Your task to perform on an android device: How much does a 2 bedroom apartment rent for in Denver? Image 0: 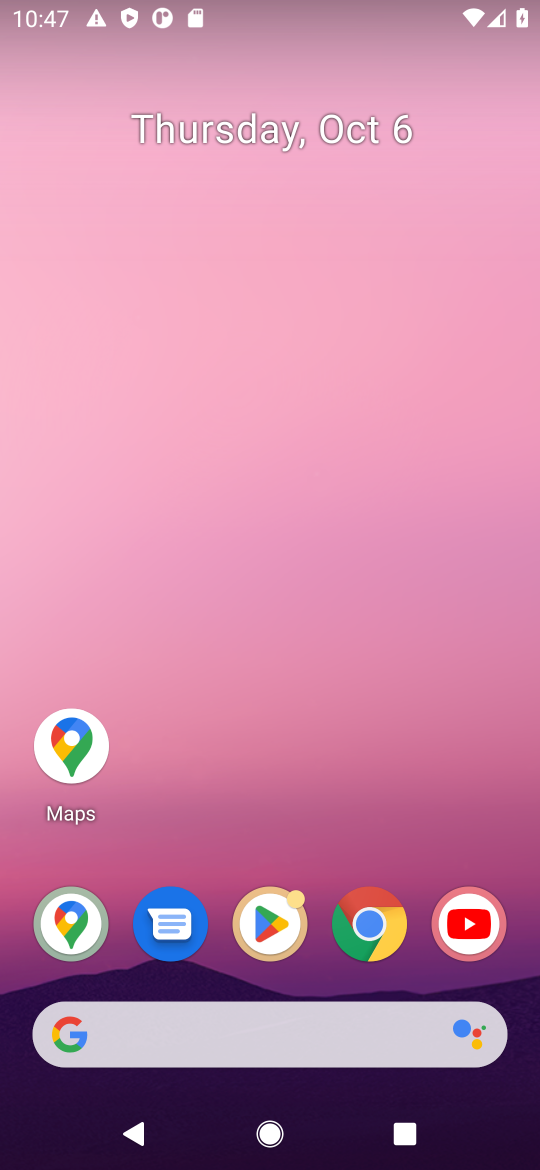
Step 0: click (364, 926)
Your task to perform on an android device: How much does a 2 bedroom apartment rent for in Denver? Image 1: 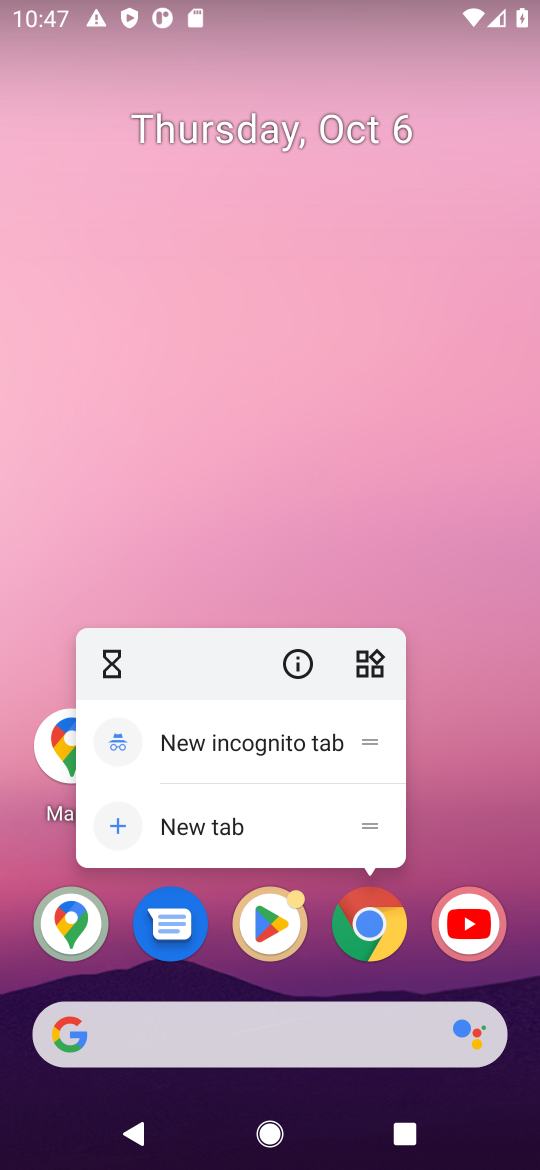
Step 1: click (383, 932)
Your task to perform on an android device: How much does a 2 bedroom apartment rent for in Denver? Image 2: 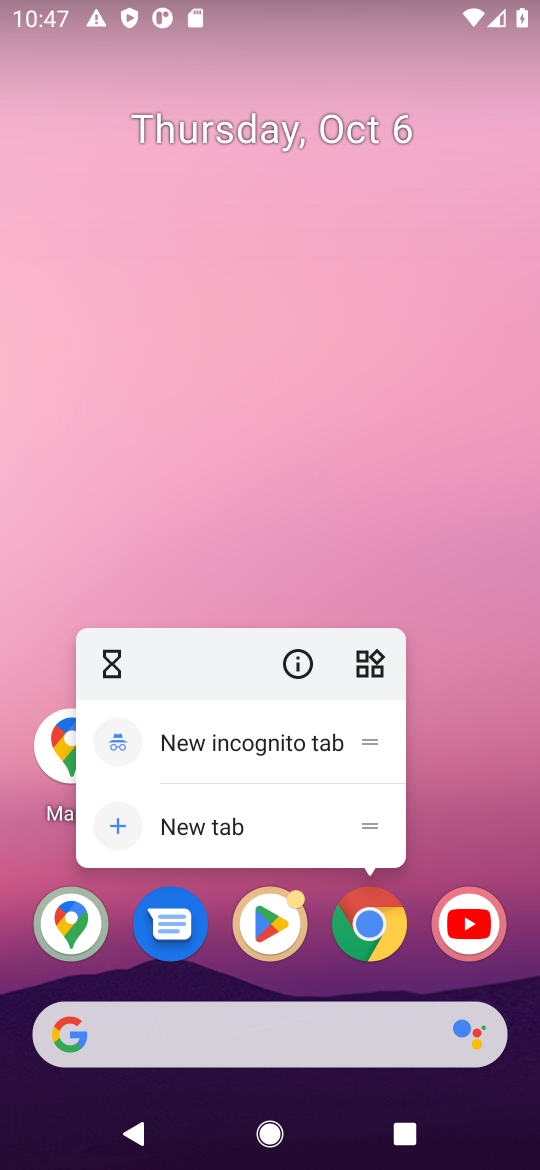
Step 2: click (383, 932)
Your task to perform on an android device: How much does a 2 bedroom apartment rent for in Denver? Image 3: 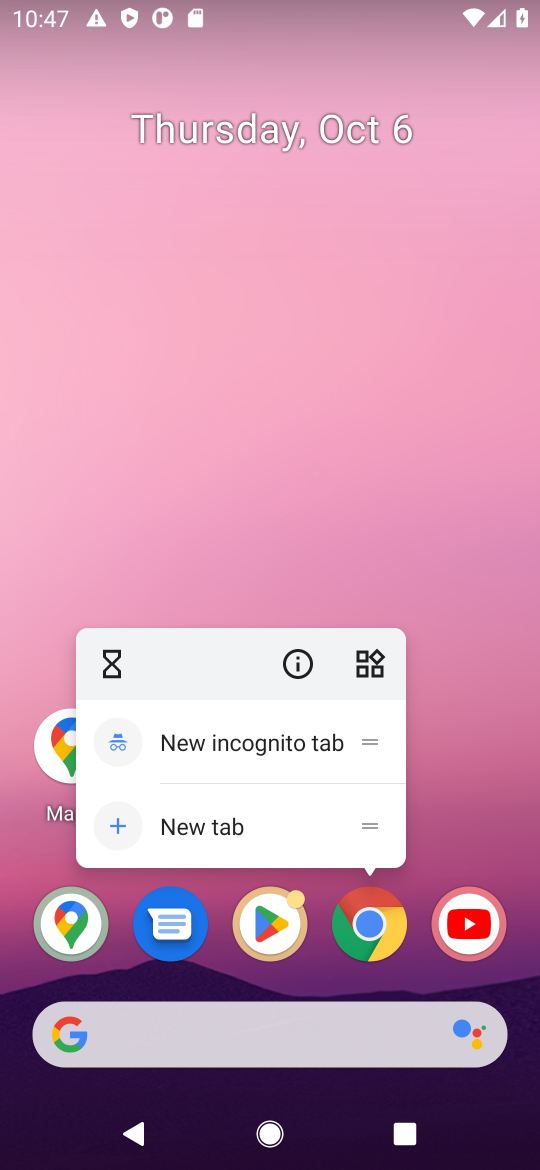
Step 3: click (359, 916)
Your task to perform on an android device: How much does a 2 bedroom apartment rent for in Denver? Image 4: 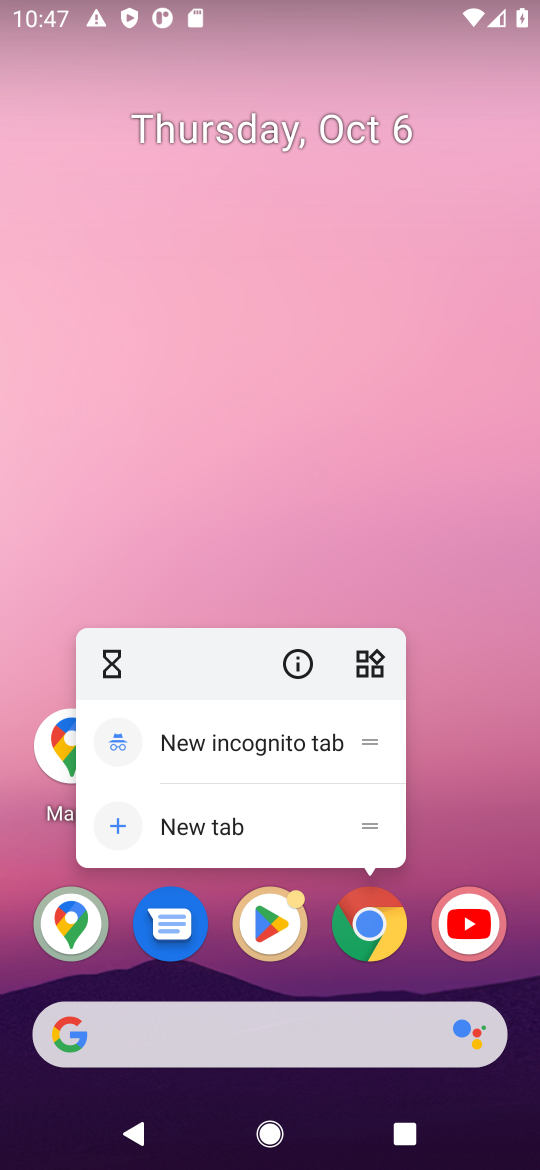
Step 4: click (369, 929)
Your task to perform on an android device: How much does a 2 bedroom apartment rent for in Denver? Image 5: 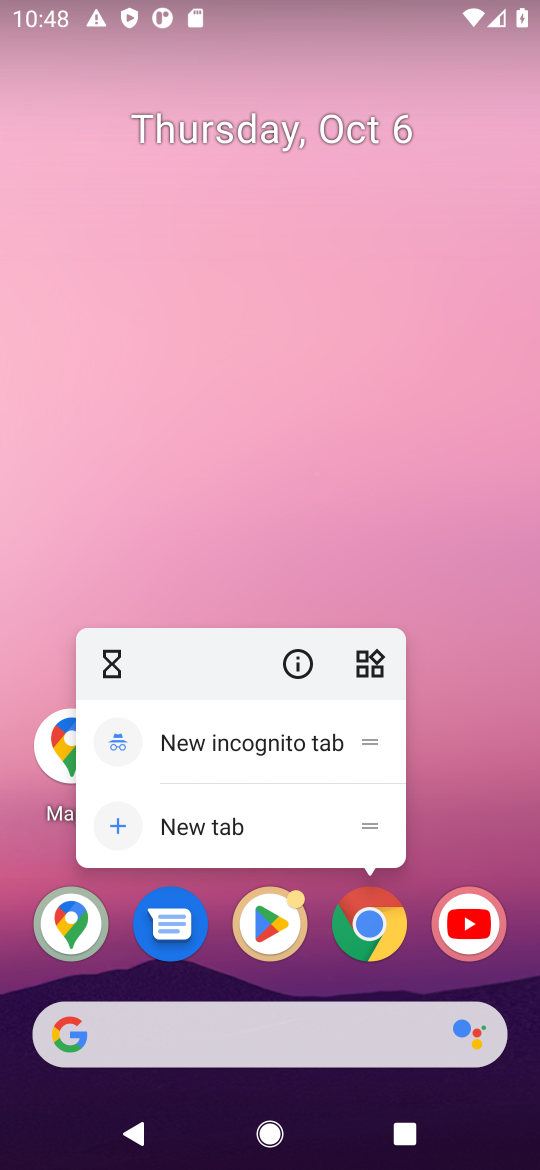
Step 5: click (369, 928)
Your task to perform on an android device: How much does a 2 bedroom apartment rent for in Denver? Image 6: 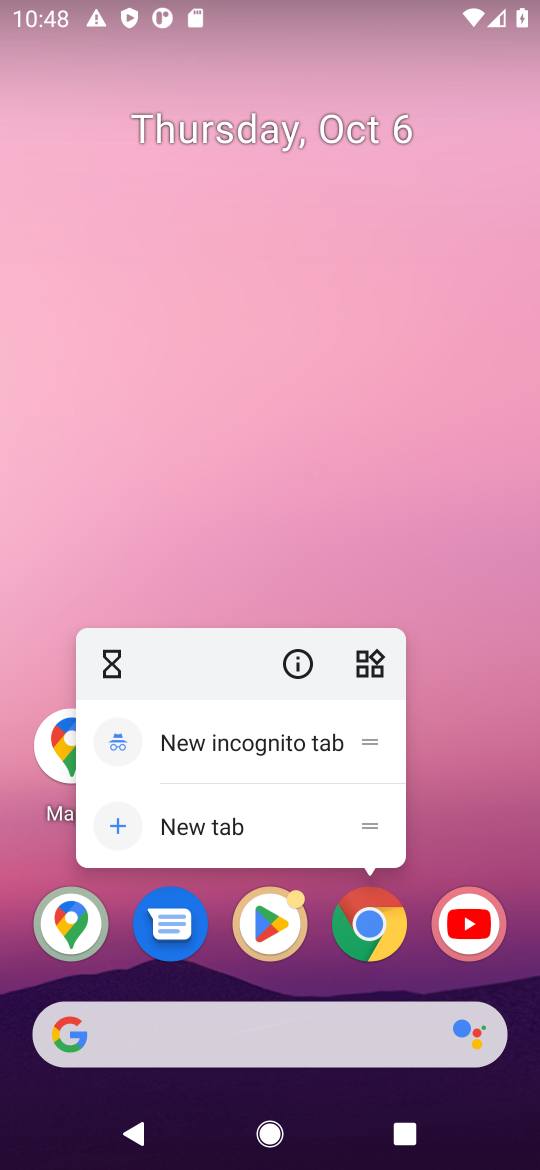
Step 6: click (369, 925)
Your task to perform on an android device: How much does a 2 bedroom apartment rent for in Denver? Image 7: 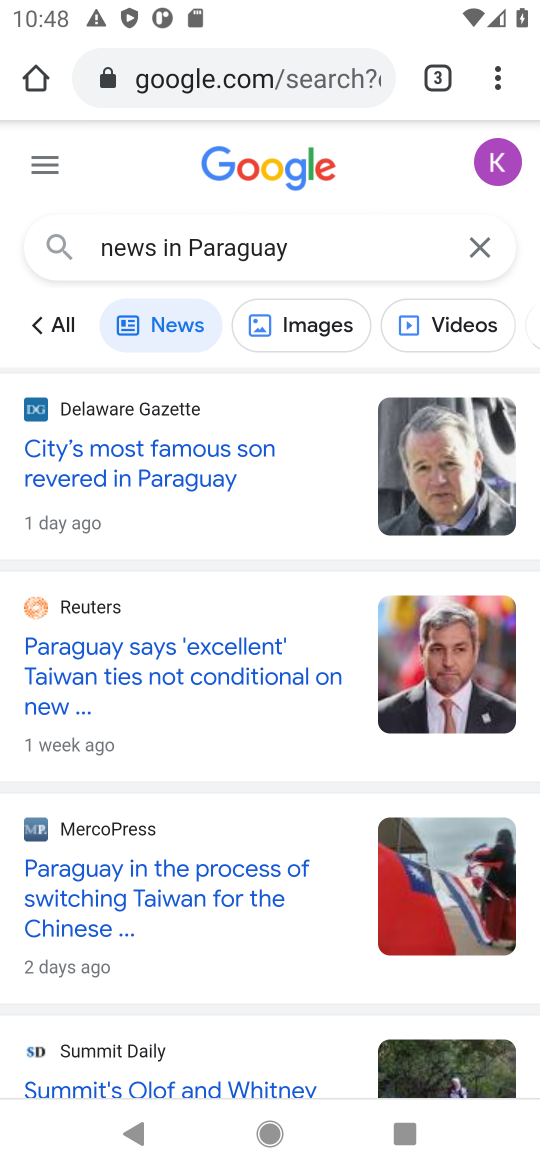
Step 7: click (320, 74)
Your task to perform on an android device: How much does a 2 bedroom apartment rent for in Denver? Image 8: 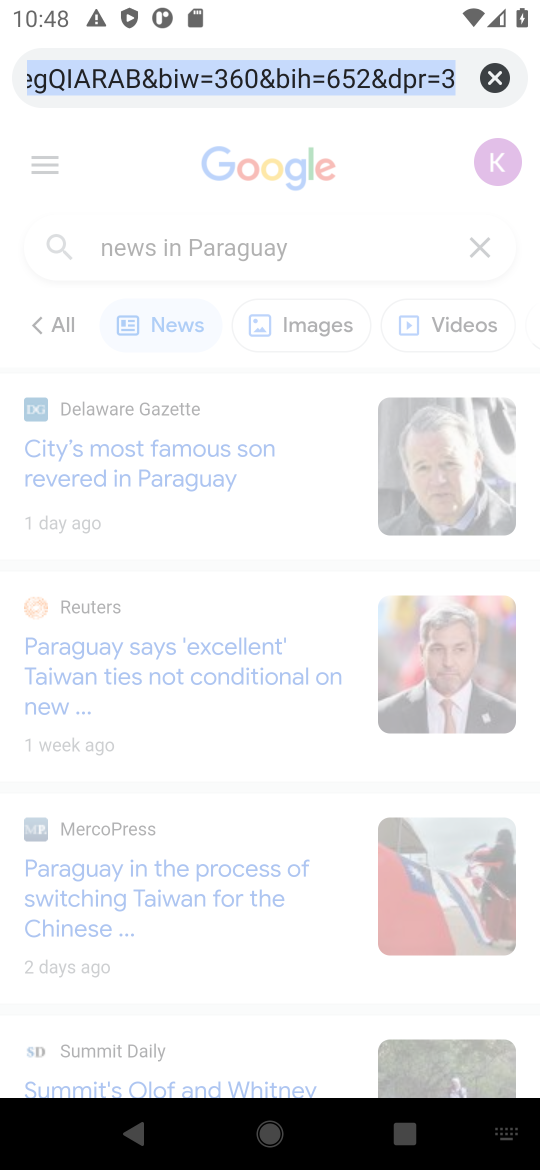
Step 8: click (501, 77)
Your task to perform on an android device: How much does a 2 bedroom apartment rent for in Denver? Image 9: 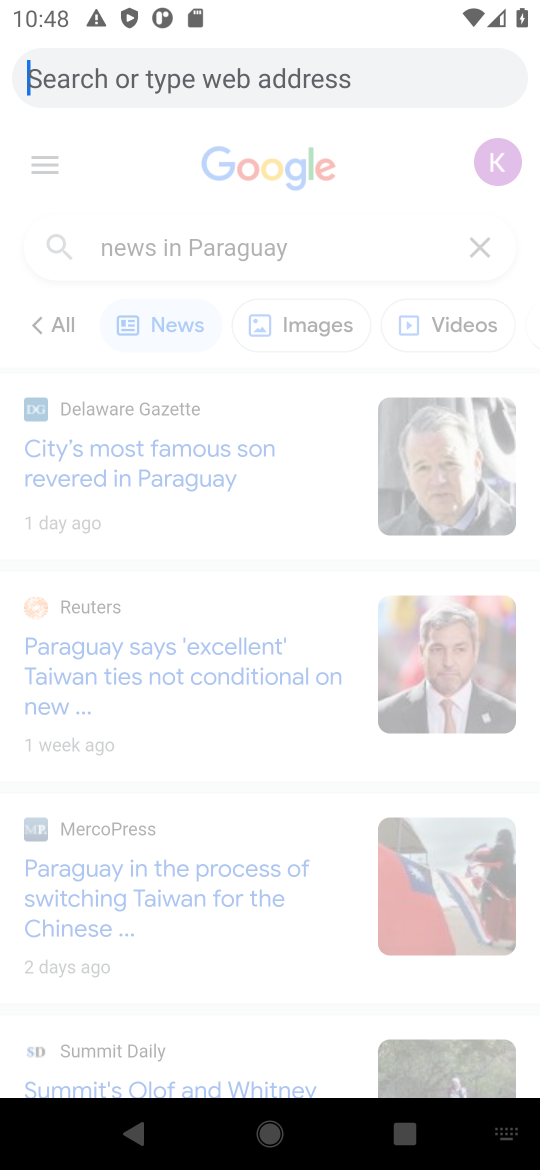
Step 9: type "2 bedroom apartment rent for in Denver"
Your task to perform on an android device: How much does a 2 bedroom apartment rent for in Denver? Image 10: 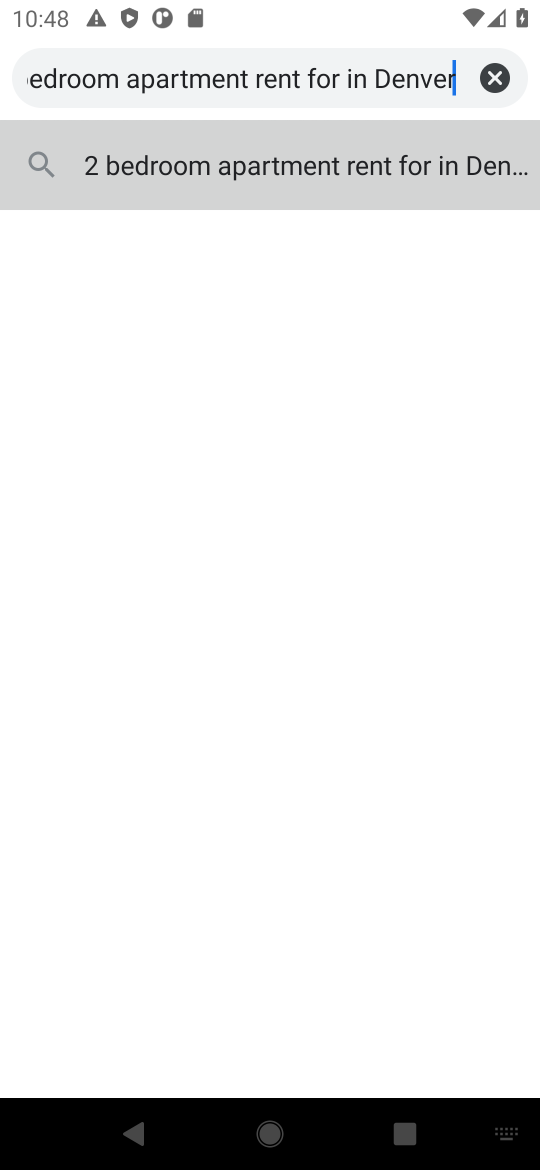
Step 10: click (246, 166)
Your task to perform on an android device: How much does a 2 bedroom apartment rent for in Denver? Image 11: 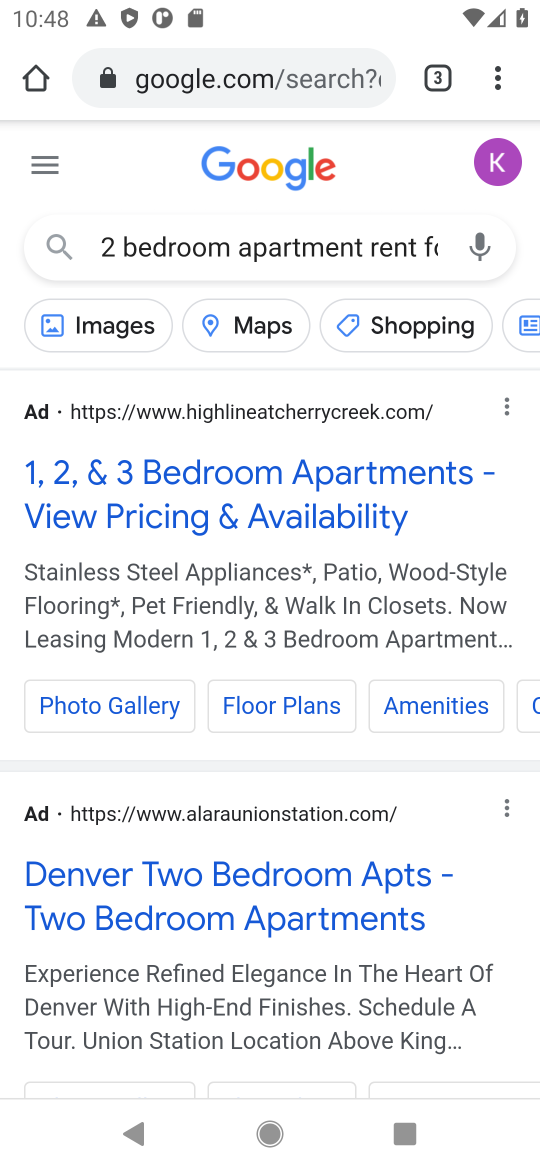
Step 11: drag from (271, 796) to (469, 114)
Your task to perform on an android device: How much does a 2 bedroom apartment rent for in Denver? Image 12: 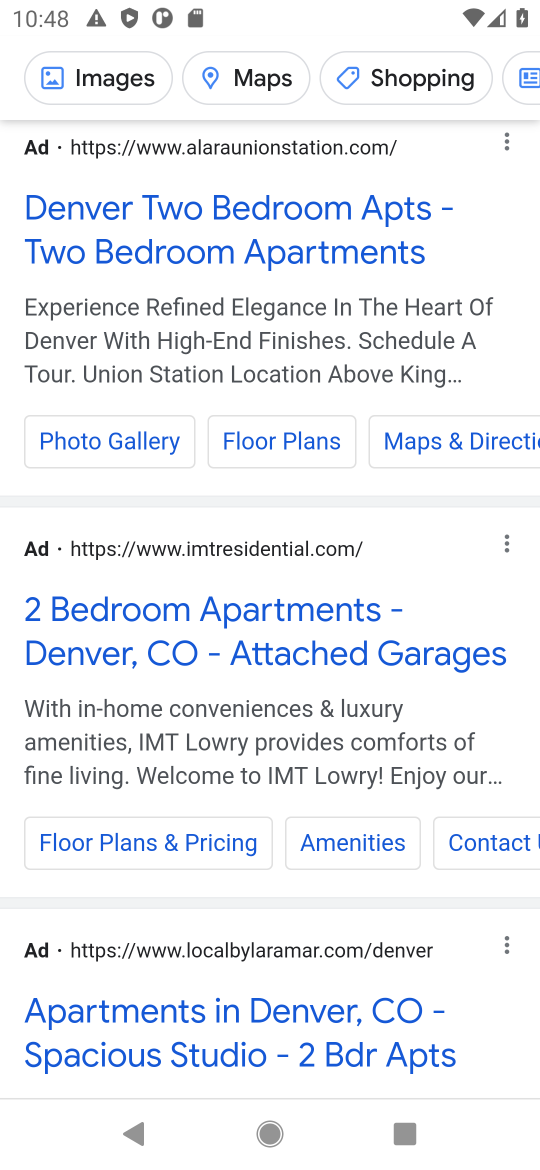
Step 12: drag from (268, 912) to (368, 329)
Your task to perform on an android device: How much does a 2 bedroom apartment rent for in Denver? Image 13: 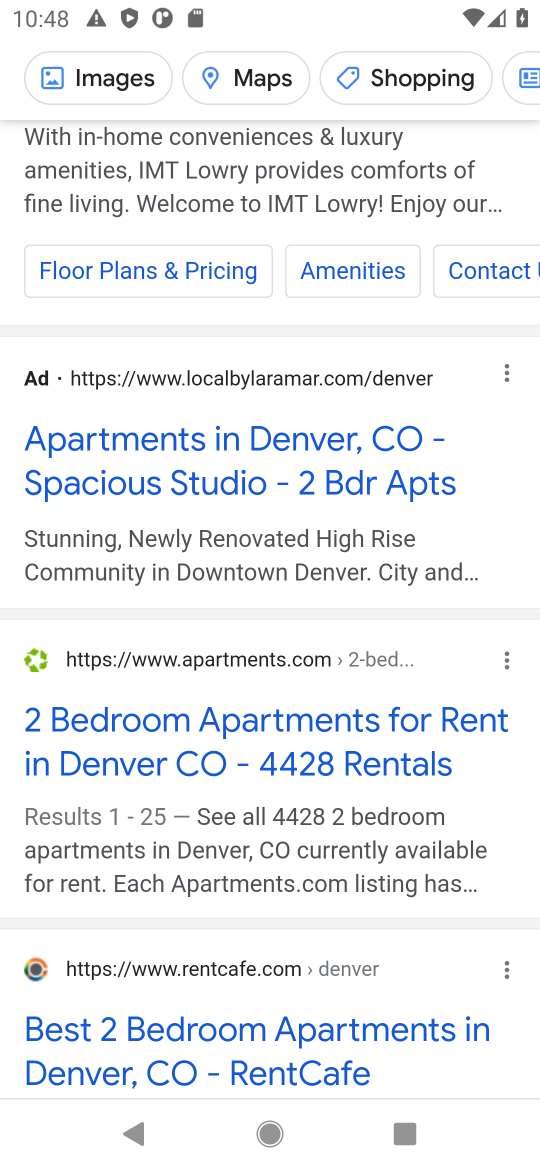
Step 13: click (266, 736)
Your task to perform on an android device: How much does a 2 bedroom apartment rent for in Denver? Image 14: 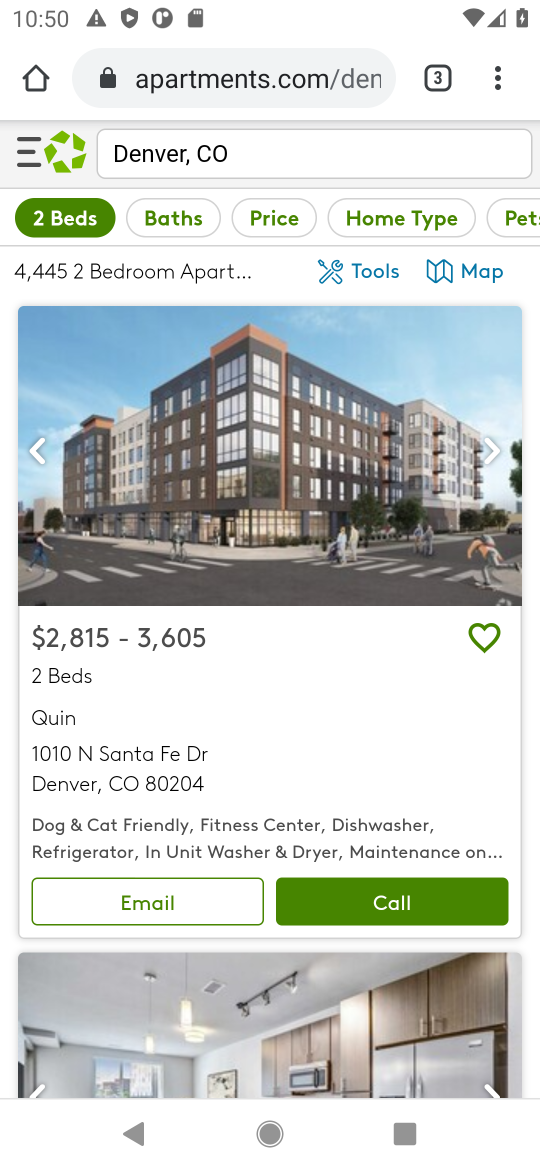
Step 14: task complete